Your task to perform on an android device: empty trash in the gmail app Image 0: 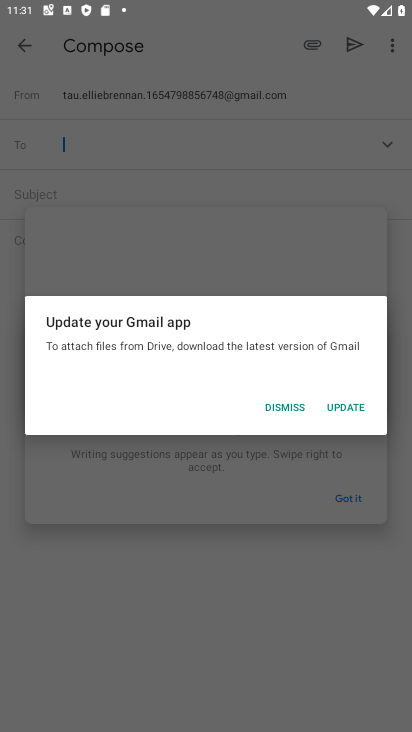
Step 0: press home button
Your task to perform on an android device: empty trash in the gmail app Image 1: 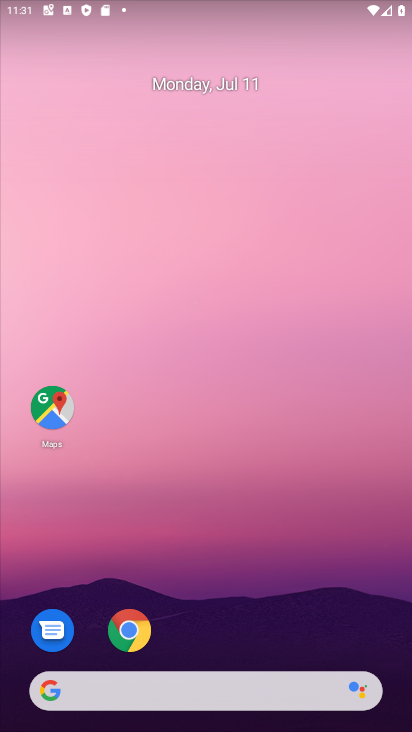
Step 1: click (270, 62)
Your task to perform on an android device: empty trash in the gmail app Image 2: 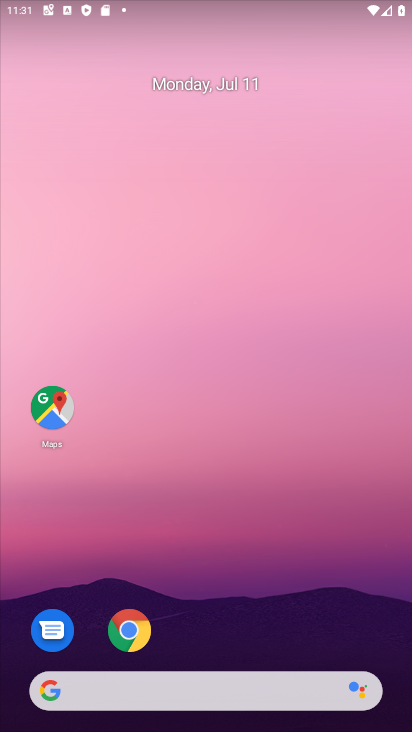
Step 2: drag from (334, 657) to (300, 139)
Your task to perform on an android device: empty trash in the gmail app Image 3: 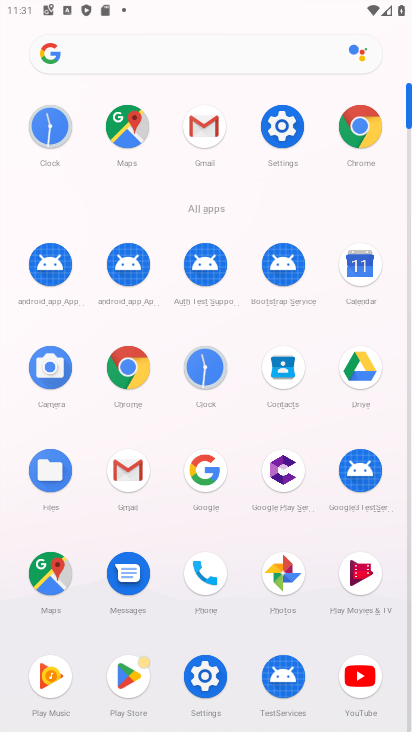
Step 3: click (130, 466)
Your task to perform on an android device: empty trash in the gmail app Image 4: 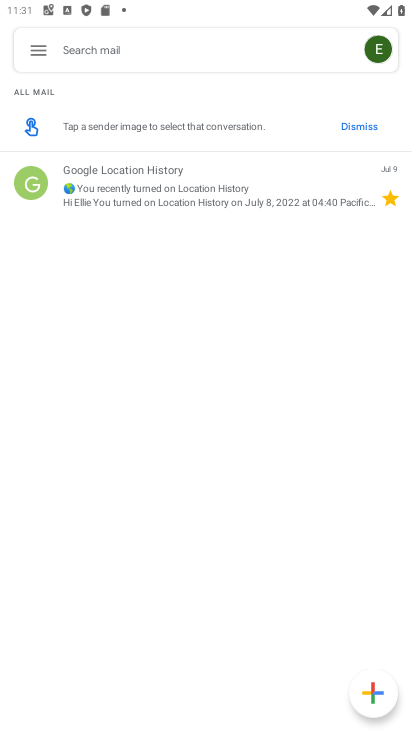
Step 4: click (25, 41)
Your task to perform on an android device: empty trash in the gmail app Image 5: 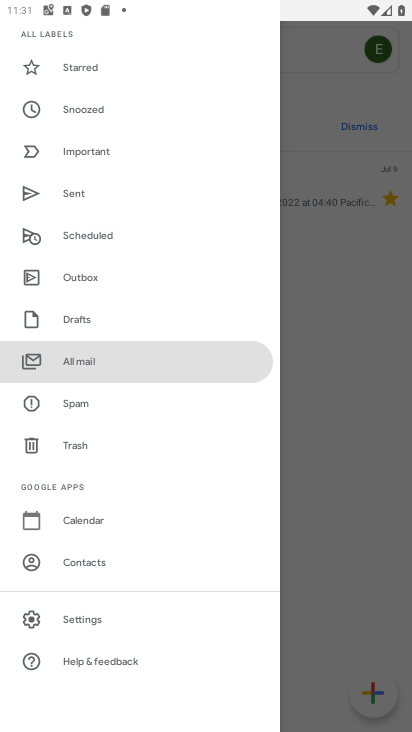
Step 5: click (69, 448)
Your task to perform on an android device: empty trash in the gmail app Image 6: 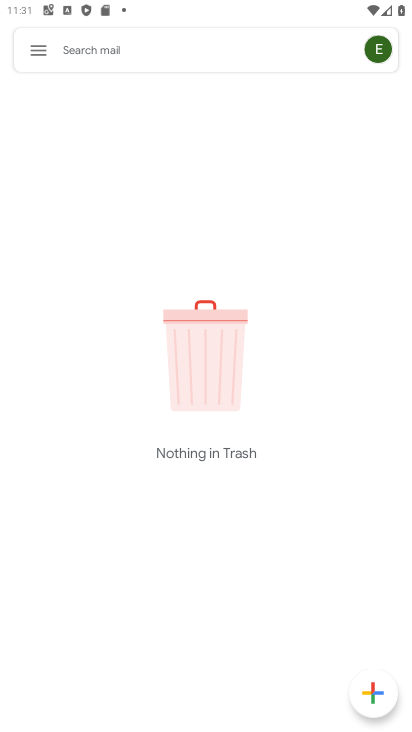
Step 6: task complete